Your task to perform on an android device: Open Google Maps Image 0: 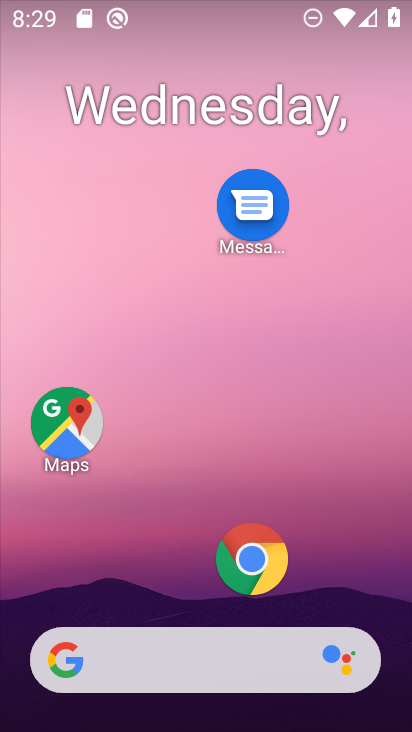
Step 0: drag from (198, 673) to (212, 239)
Your task to perform on an android device: Open Google Maps Image 1: 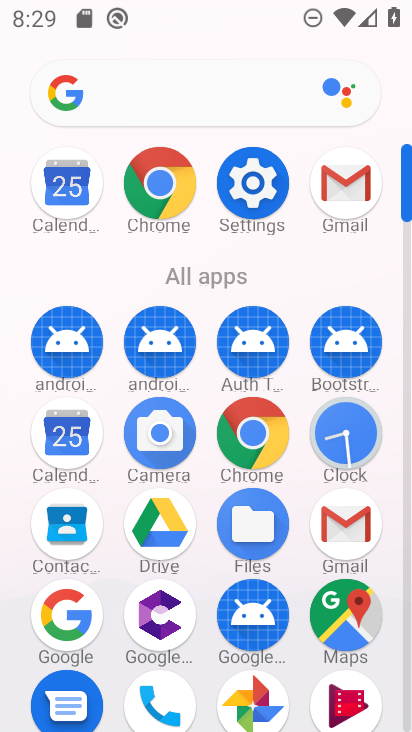
Step 1: drag from (257, 516) to (268, 230)
Your task to perform on an android device: Open Google Maps Image 2: 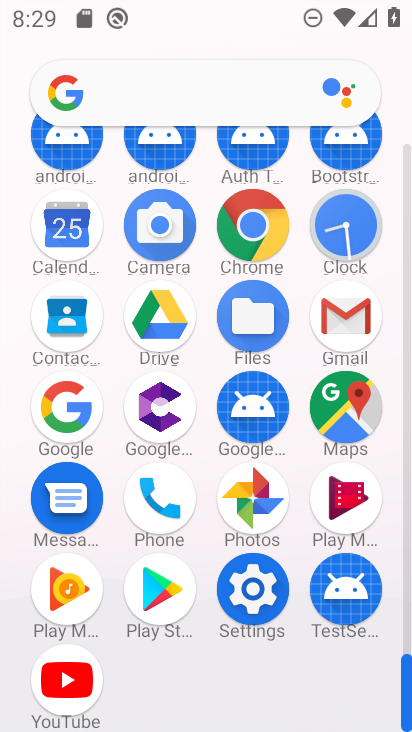
Step 2: click (334, 437)
Your task to perform on an android device: Open Google Maps Image 3: 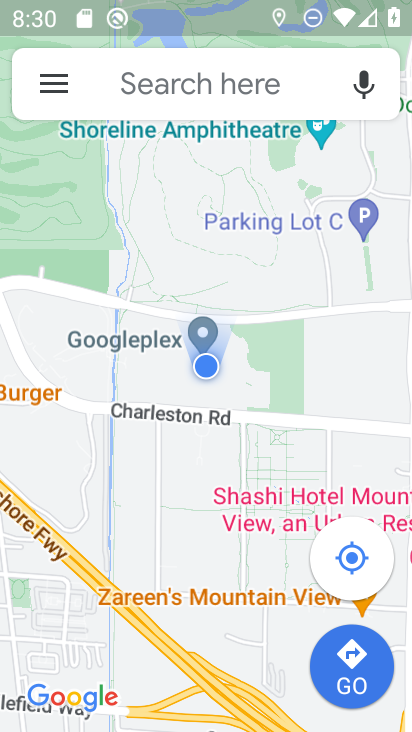
Step 3: task complete